Your task to perform on an android device: Open CNN.com Image 0: 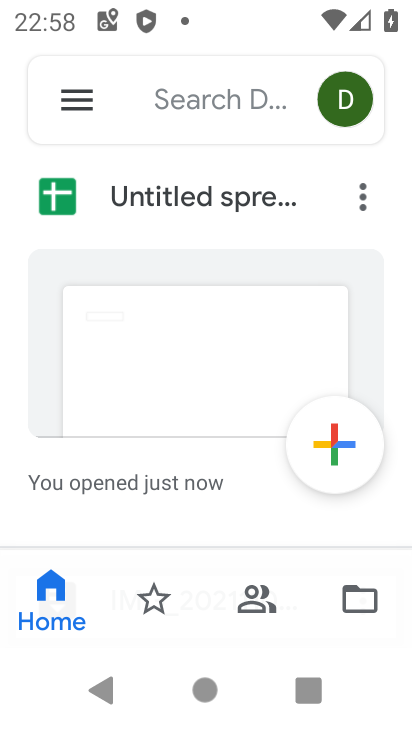
Step 0: press home button
Your task to perform on an android device: Open CNN.com Image 1: 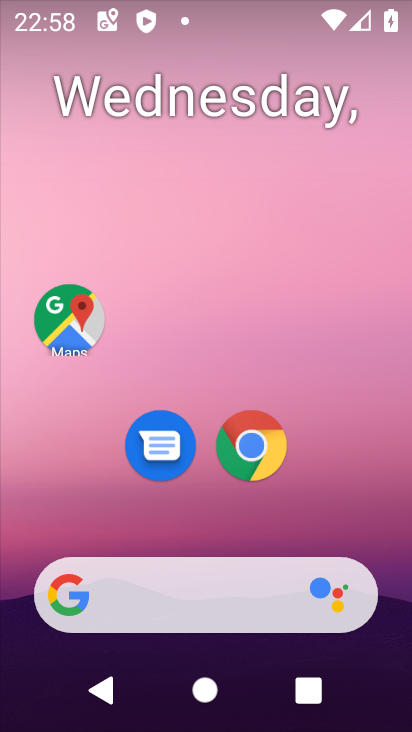
Step 1: drag from (316, 530) to (316, 210)
Your task to perform on an android device: Open CNN.com Image 2: 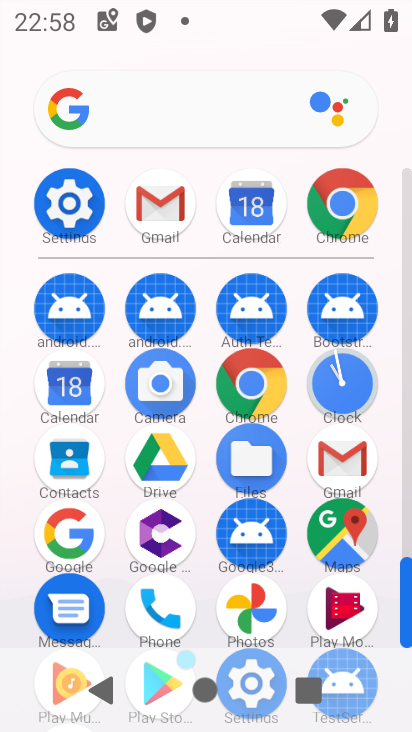
Step 2: click (259, 372)
Your task to perform on an android device: Open CNN.com Image 3: 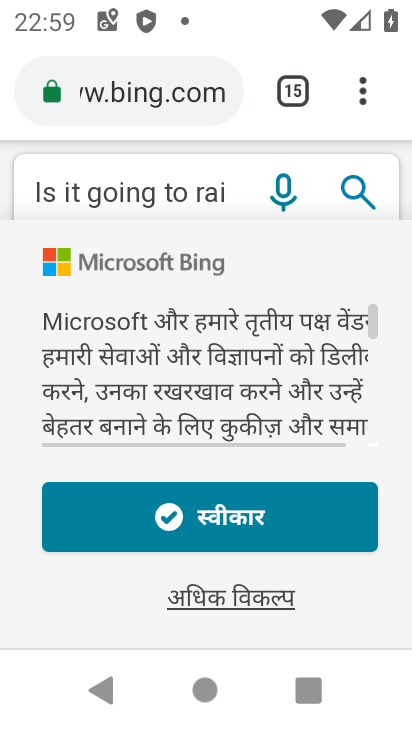
Step 3: click (381, 90)
Your task to perform on an android device: Open CNN.com Image 4: 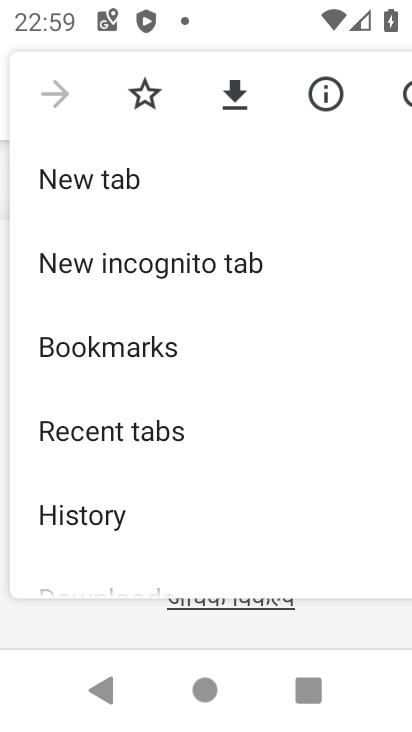
Step 4: drag from (246, 434) to (309, 211)
Your task to perform on an android device: Open CNN.com Image 5: 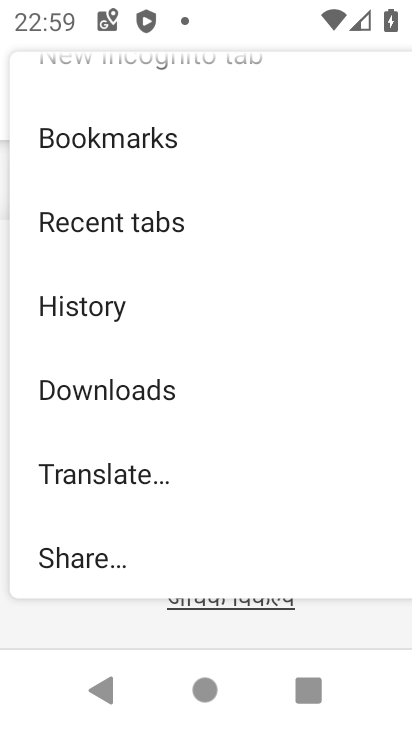
Step 5: drag from (202, 154) to (199, 506)
Your task to perform on an android device: Open CNN.com Image 6: 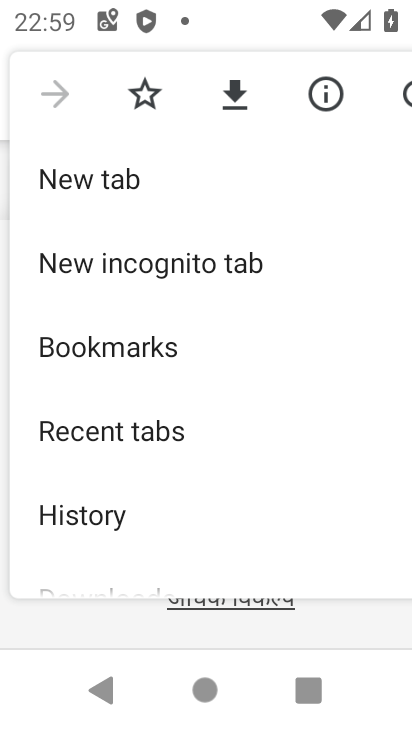
Step 6: click (147, 160)
Your task to perform on an android device: Open CNN.com Image 7: 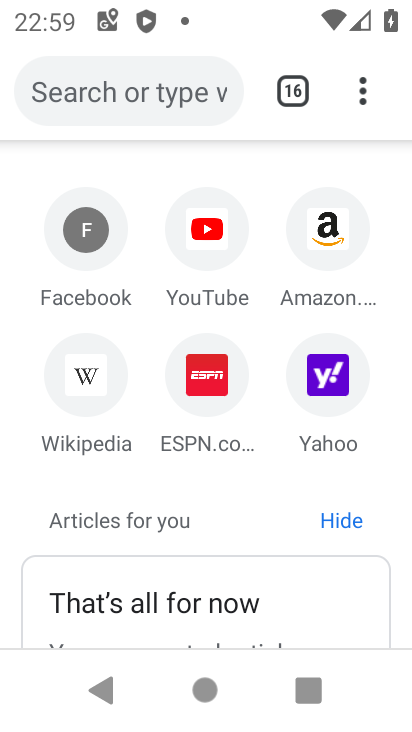
Step 7: click (171, 90)
Your task to perform on an android device: Open CNN.com Image 8: 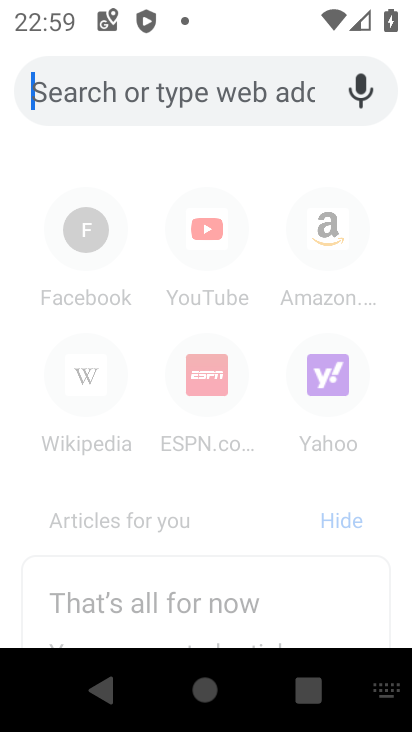
Step 8: click (146, 87)
Your task to perform on an android device: Open CNN.com Image 9: 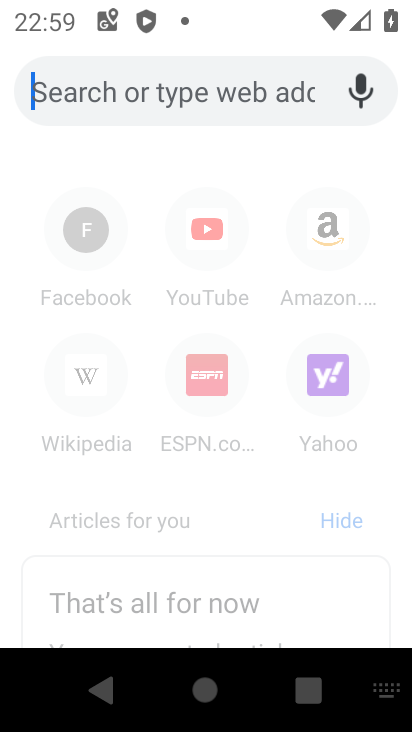
Step 9: type "CNN.com"
Your task to perform on an android device: Open CNN.com Image 10: 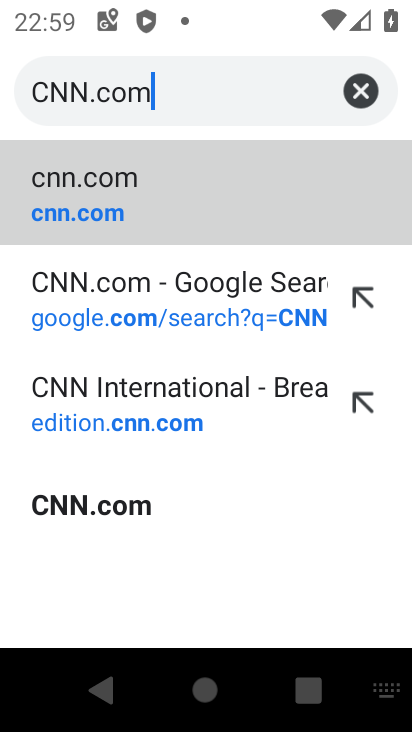
Step 10: click (270, 197)
Your task to perform on an android device: Open CNN.com Image 11: 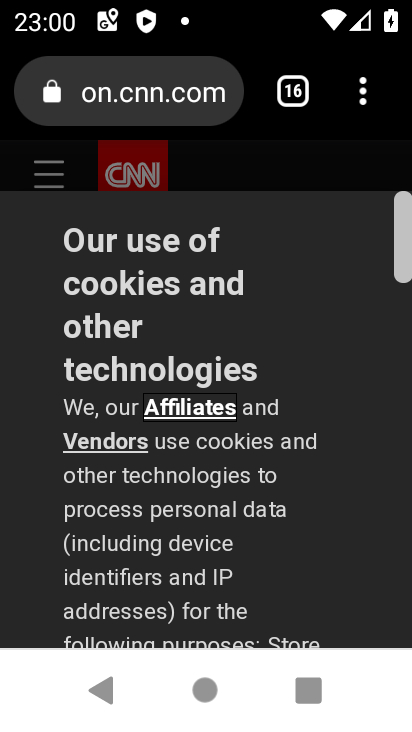
Step 11: task complete